Your task to perform on an android device: empty trash in the gmail app Image 0: 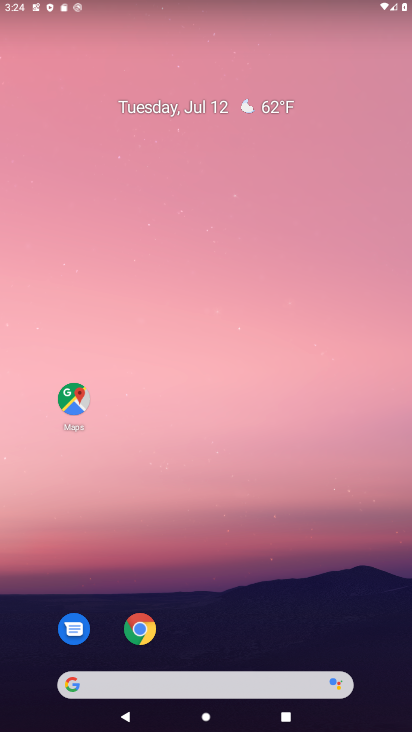
Step 0: drag from (187, 656) to (357, 2)
Your task to perform on an android device: empty trash in the gmail app Image 1: 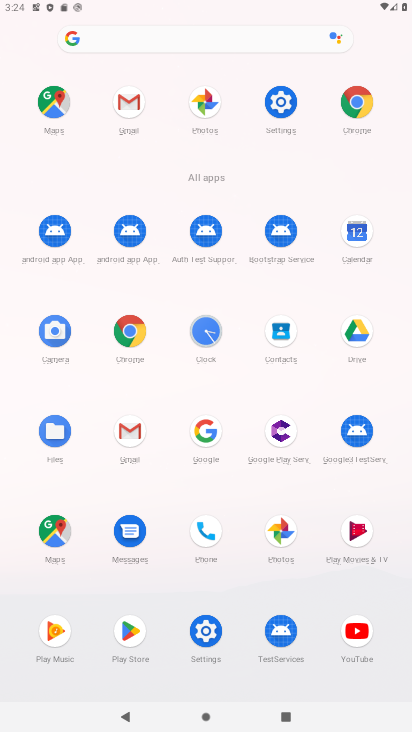
Step 1: click (139, 435)
Your task to perform on an android device: empty trash in the gmail app Image 2: 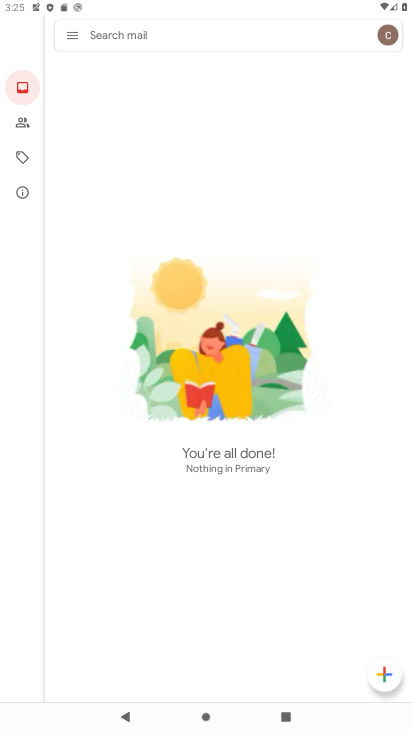
Step 2: click (73, 30)
Your task to perform on an android device: empty trash in the gmail app Image 3: 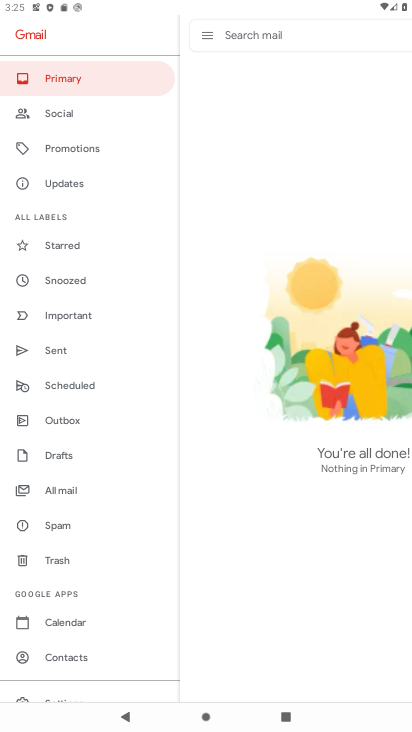
Step 3: click (76, 554)
Your task to perform on an android device: empty trash in the gmail app Image 4: 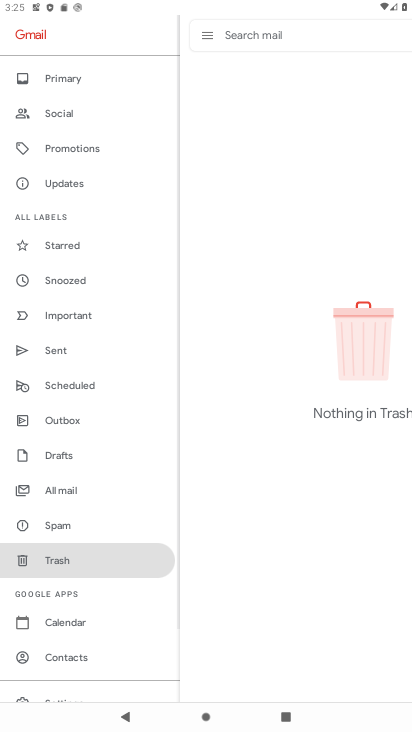
Step 4: task complete